Your task to perform on an android device: Open Android settings Image 0: 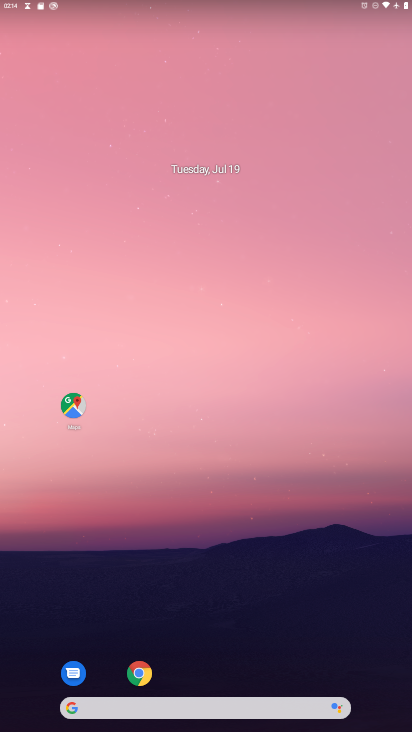
Step 0: drag from (211, 397) to (211, 204)
Your task to perform on an android device: Open Android settings Image 1: 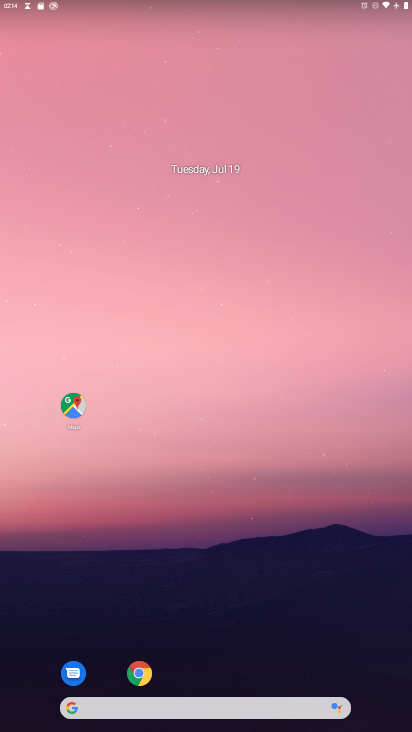
Step 1: drag from (219, 659) to (211, 113)
Your task to perform on an android device: Open Android settings Image 2: 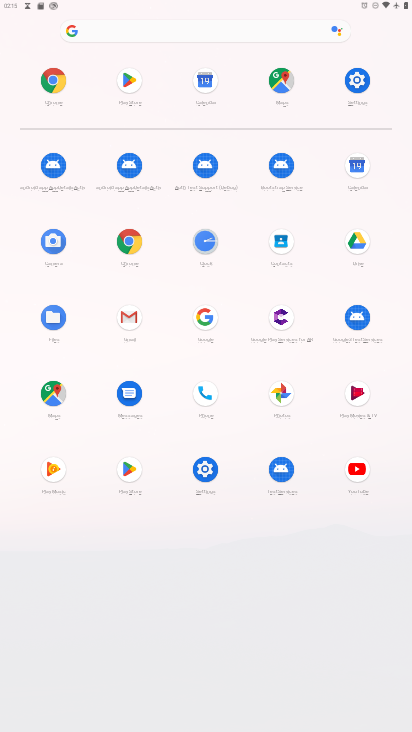
Step 2: click (353, 85)
Your task to perform on an android device: Open Android settings Image 3: 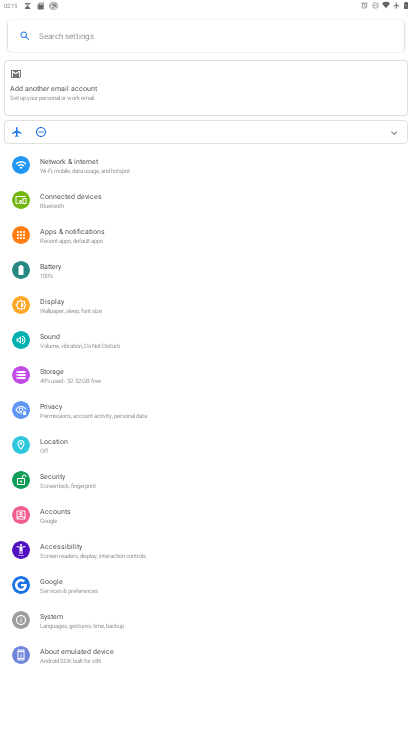
Step 3: task complete